Your task to perform on an android device: change the clock display to show seconds Image 0: 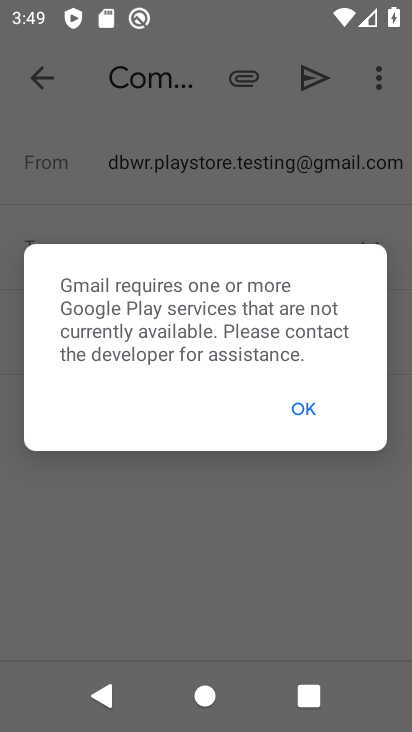
Step 0: press back button
Your task to perform on an android device: change the clock display to show seconds Image 1: 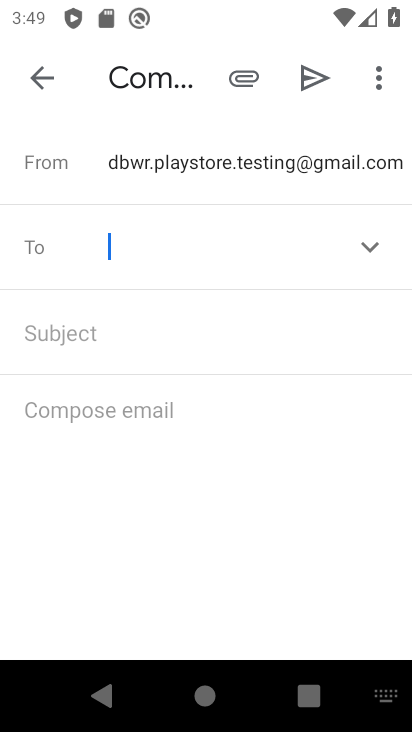
Step 1: press back button
Your task to perform on an android device: change the clock display to show seconds Image 2: 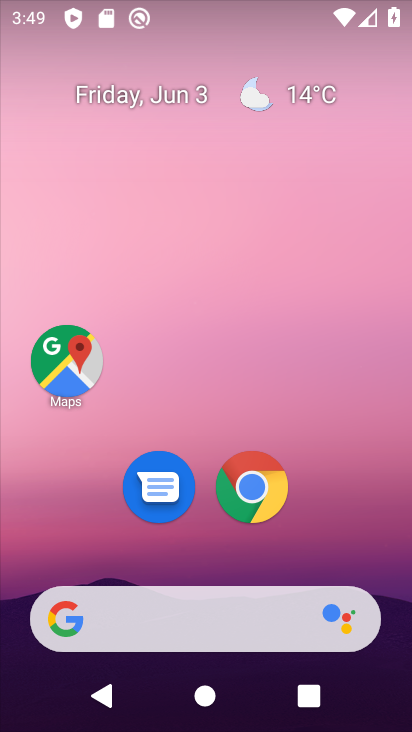
Step 2: drag from (159, 581) to (248, 88)
Your task to perform on an android device: change the clock display to show seconds Image 3: 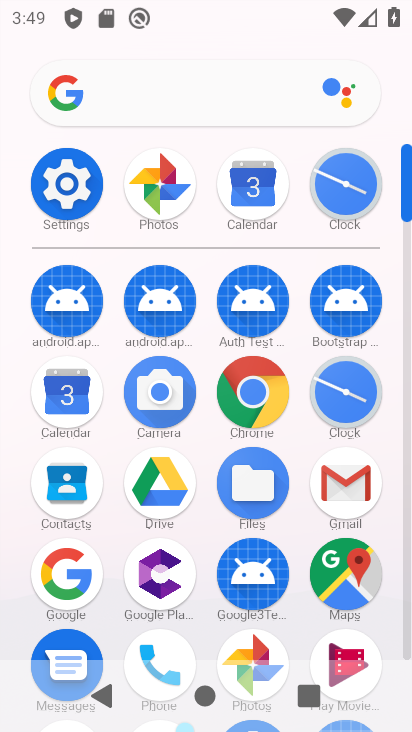
Step 3: click (350, 382)
Your task to perform on an android device: change the clock display to show seconds Image 4: 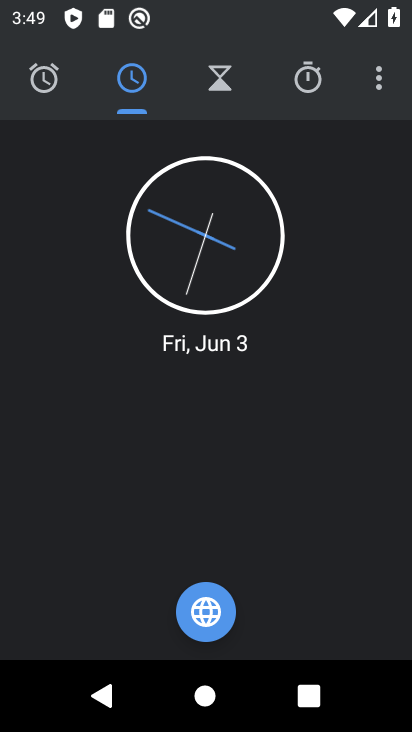
Step 4: click (375, 73)
Your task to perform on an android device: change the clock display to show seconds Image 5: 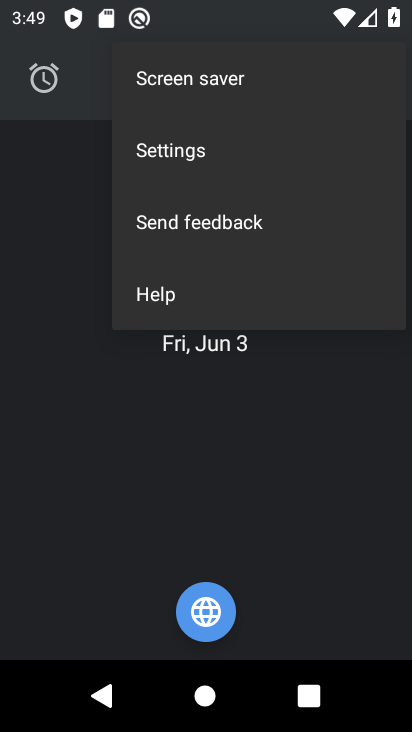
Step 5: click (157, 155)
Your task to perform on an android device: change the clock display to show seconds Image 6: 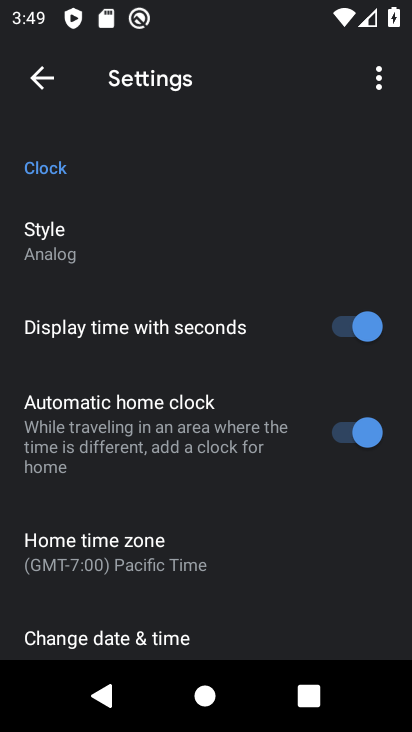
Step 6: click (121, 236)
Your task to perform on an android device: change the clock display to show seconds Image 7: 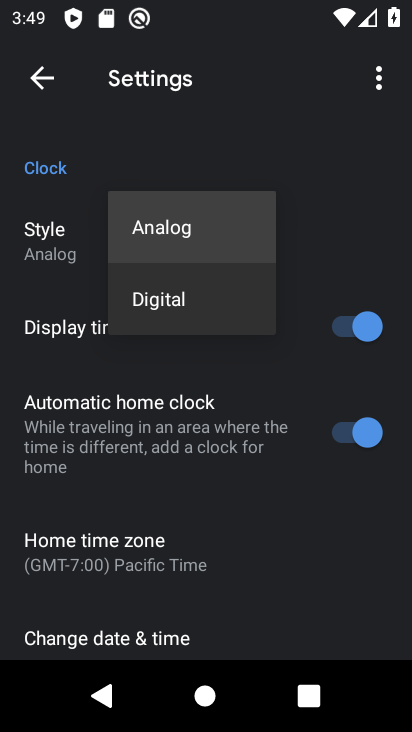
Step 7: click (174, 299)
Your task to perform on an android device: change the clock display to show seconds Image 8: 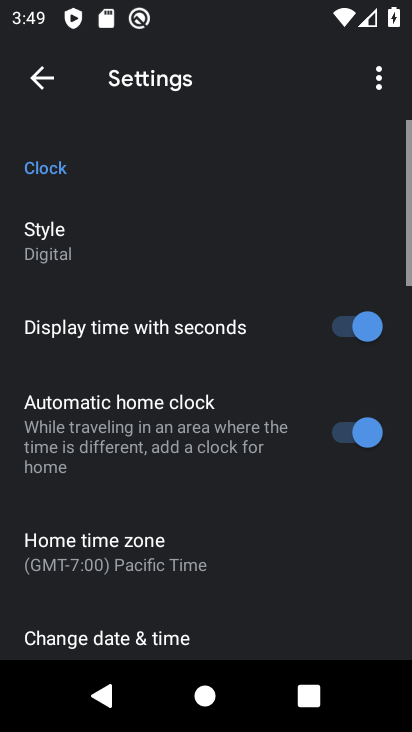
Step 8: task complete